Your task to perform on an android device: turn off notifications in google photos Image 0: 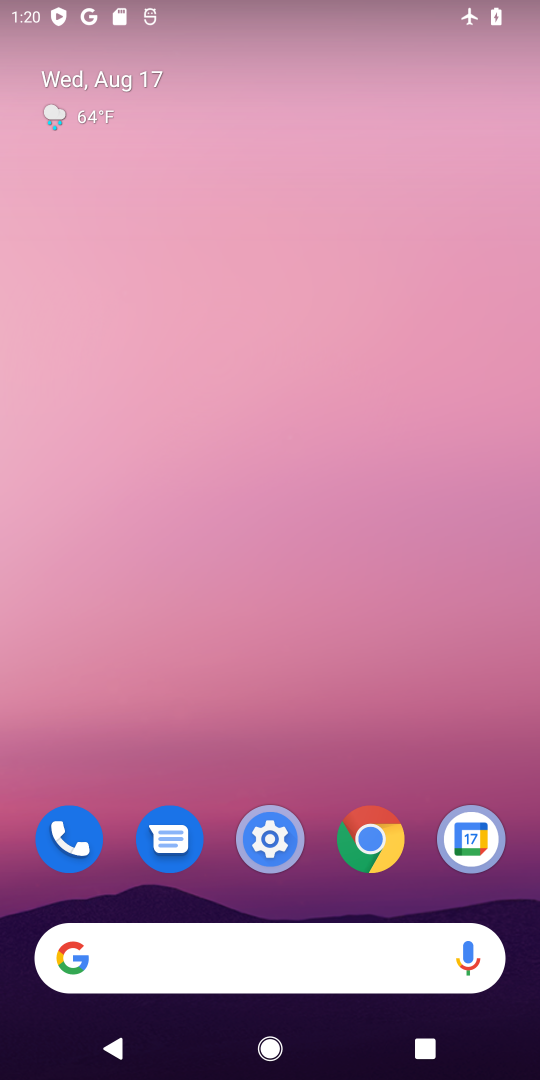
Step 0: drag from (272, 986) to (300, 416)
Your task to perform on an android device: turn off notifications in google photos Image 1: 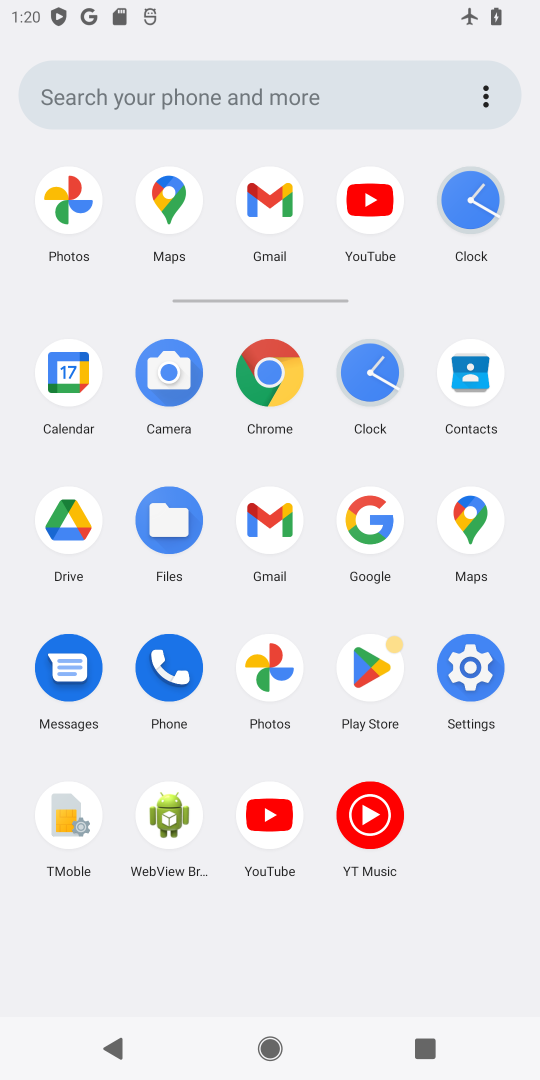
Step 1: click (67, 205)
Your task to perform on an android device: turn off notifications in google photos Image 2: 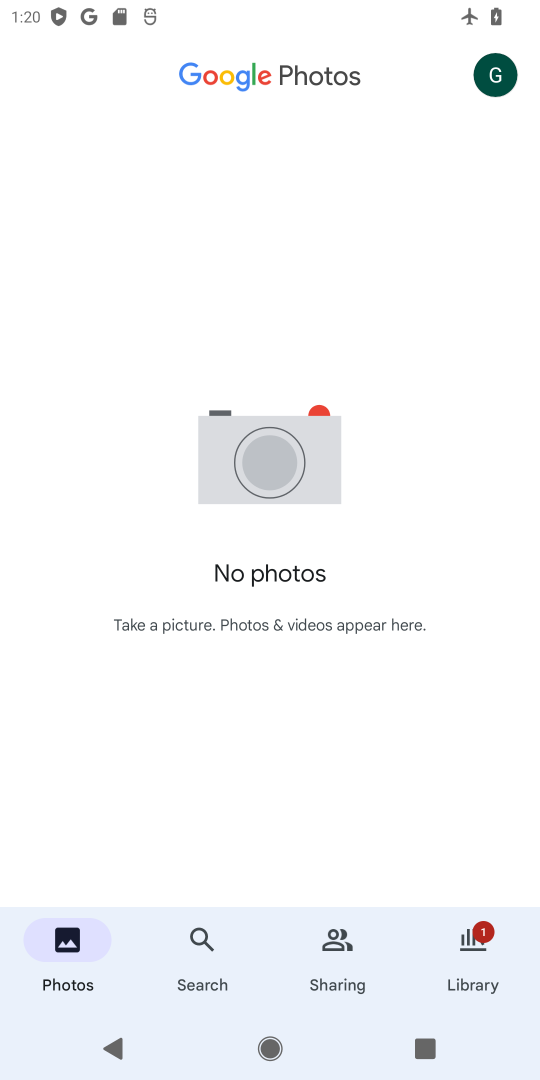
Step 2: click (493, 81)
Your task to perform on an android device: turn off notifications in google photos Image 3: 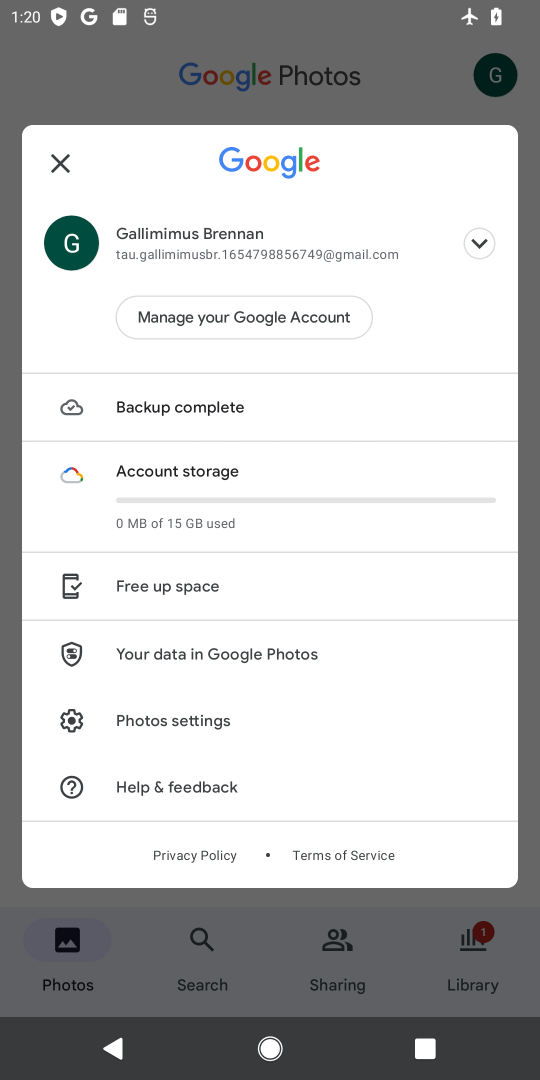
Step 3: click (206, 725)
Your task to perform on an android device: turn off notifications in google photos Image 4: 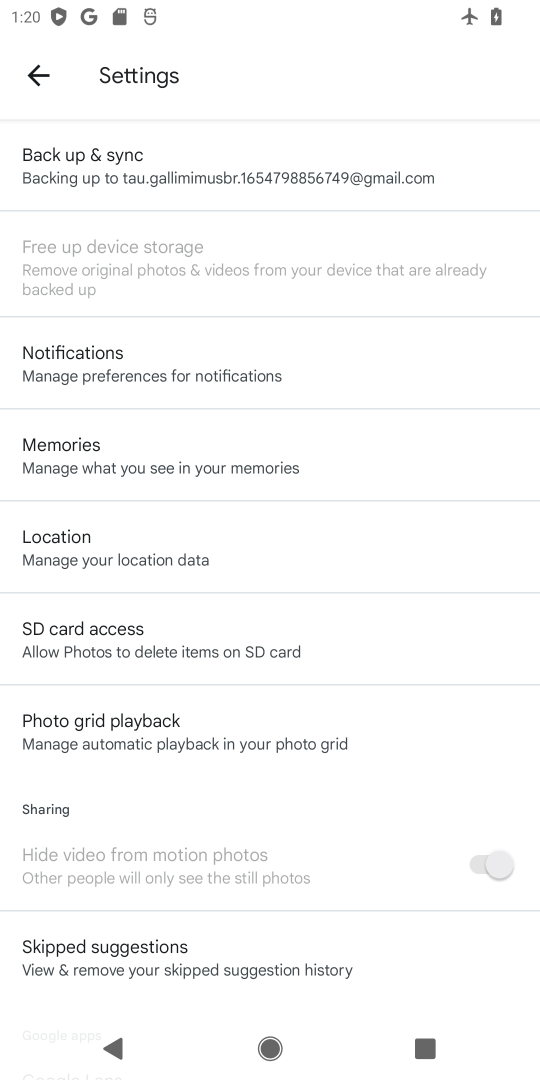
Step 4: click (247, 386)
Your task to perform on an android device: turn off notifications in google photos Image 5: 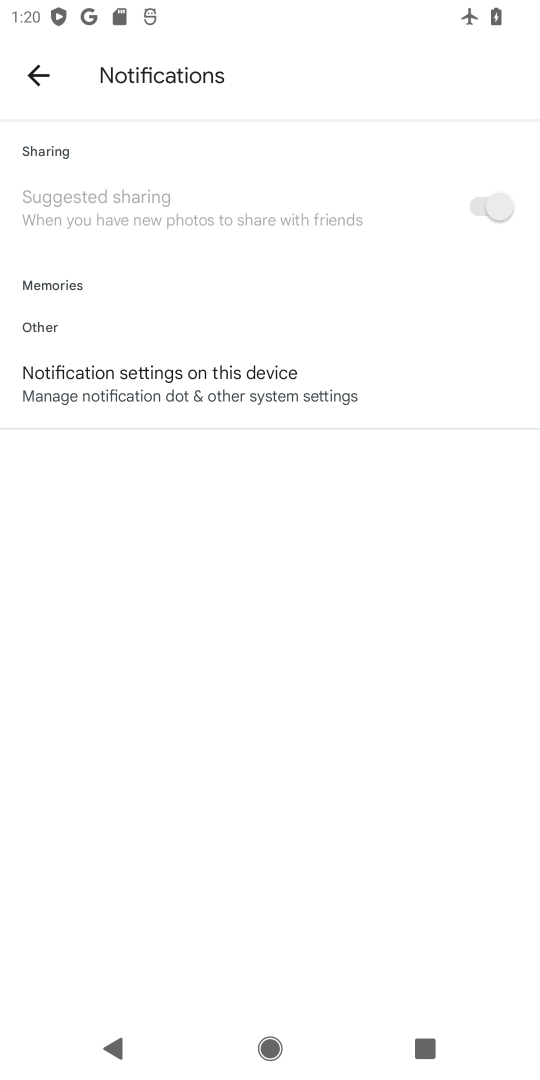
Step 5: click (247, 386)
Your task to perform on an android device: turn off notifications in google photos Image 6: 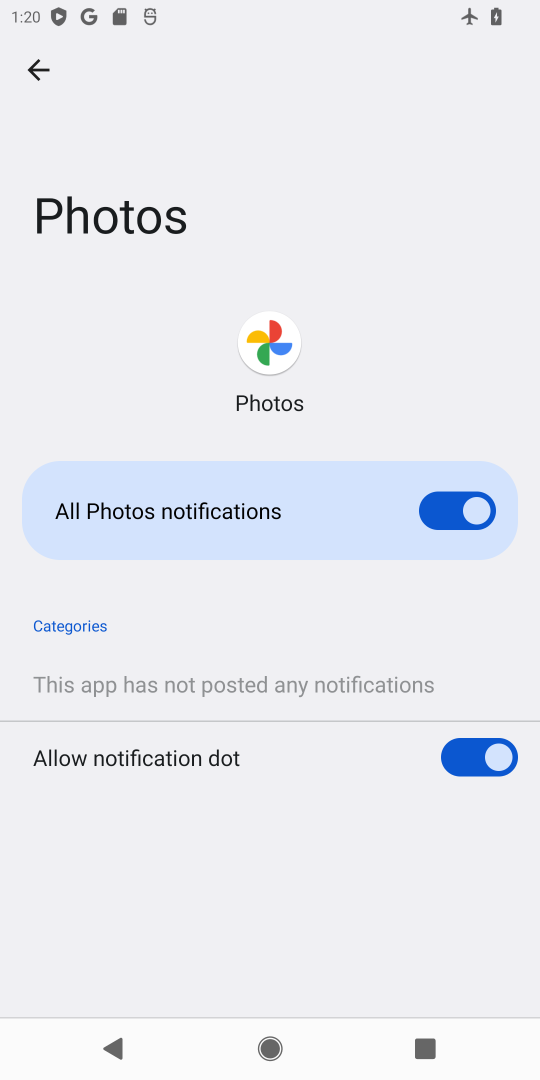
Step 6: click (439, 512)
Your task to perform on an android device: turn off notifications in google photos Image 7: 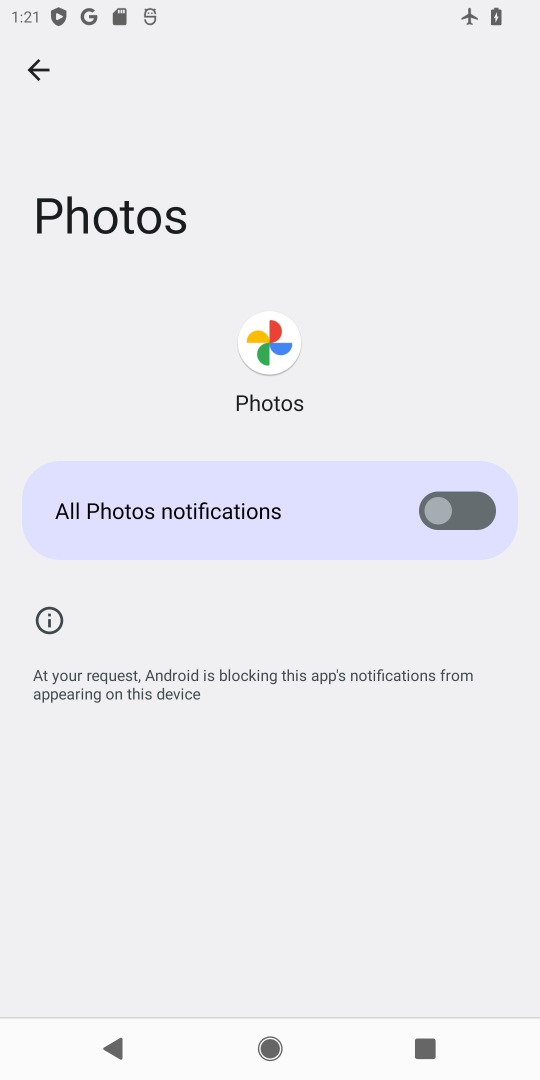
Step 7: task complete